Your task to perform on an android device: Open network settings Image 0: 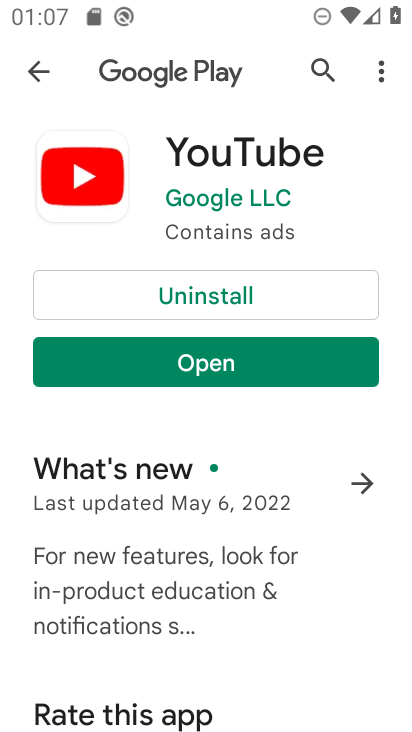
Step 0: press home button
Your task to perform on an android device: Open network settings Image 1: 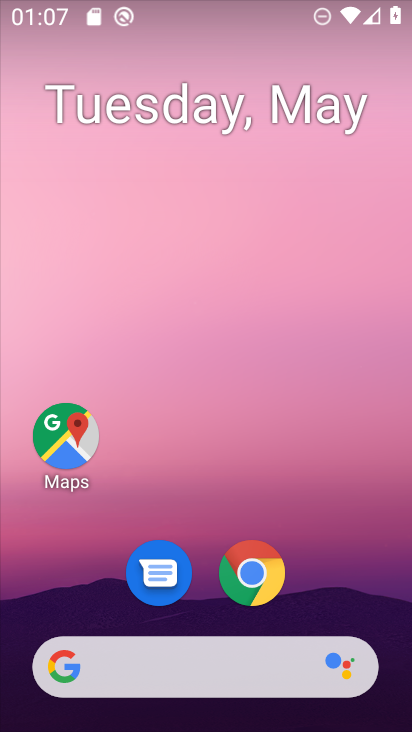
Step 1: drag from (343, 551) to (213, 50)
Your task to perform on an android device: Open network settings Image 2: 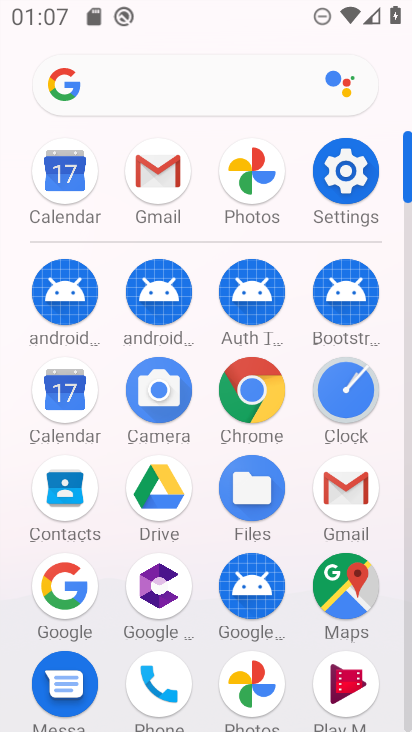
Step 2: click (335, 182)
Your task to perform on an android device: Open network settings Image 3: 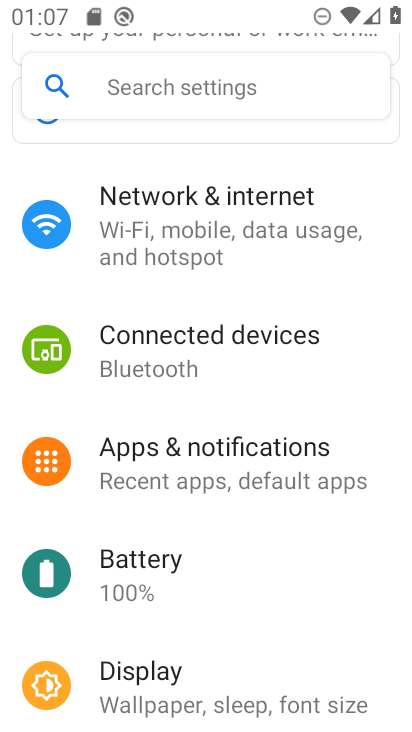
Step 3: click (225, 239)
Your task to perform on an android device: Open network settings Image 4: 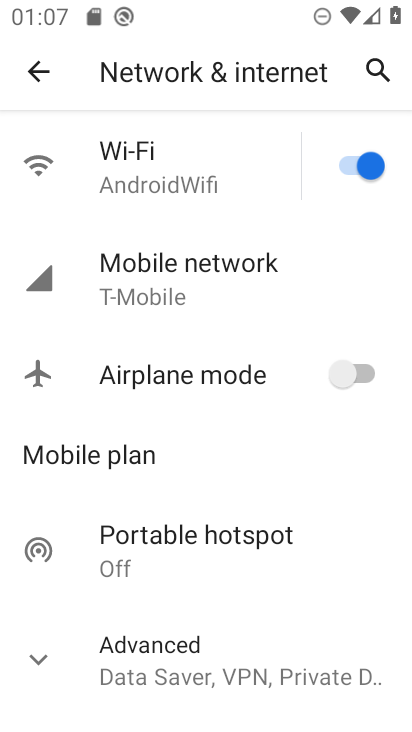
Step 4: task complete